Your task to perform on an android device: View the shopping cart on newegg. Search for bose soundlink on newegg, select the first entry, and add it to the cart. Image 0: 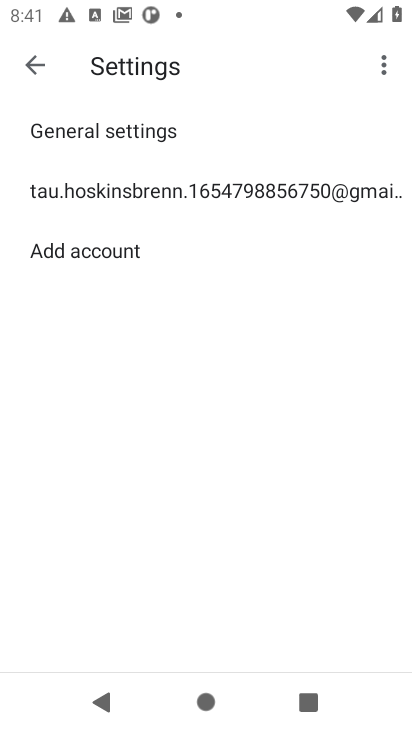
Step 0: press home button
Your task to perform on an android device: View the shopping cart on newegg. Search for bose soundlink on newegg, select the first entry, and add it to the cart. Image 1: 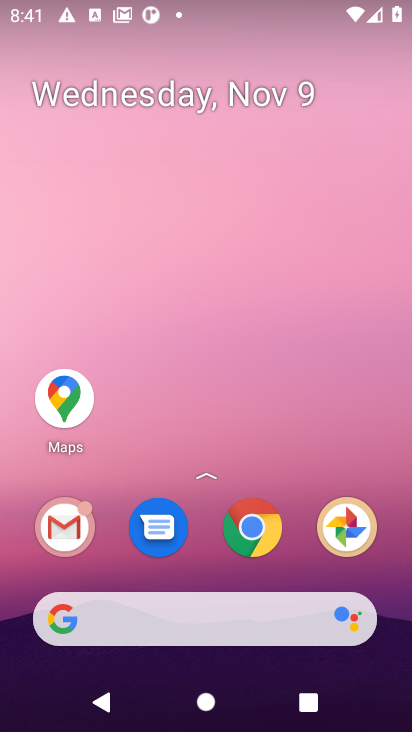
Step 1: click (260, 533)
Your task to perform on an android device: View the shopping cart on newegg. Search for bose soundlink on newegg, select the first entry, and add it to the cart. Image 2: 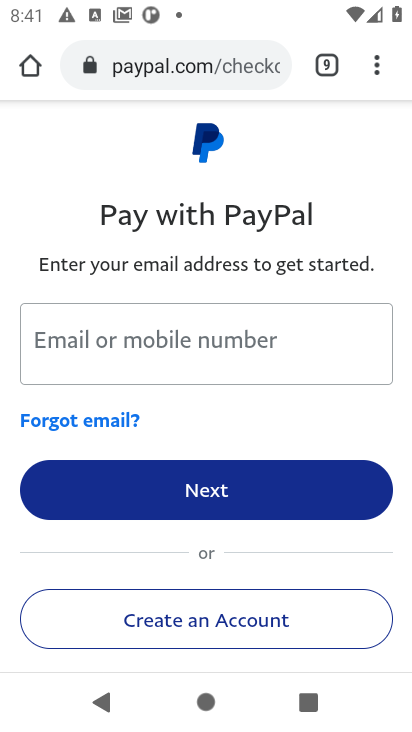
Step 2: click (223, 75)
Your task to perform on an android device: View the shopping cart on newegg. Search for bose soundlink on newegg, select the first entry, and add it to the cart. Image 3: 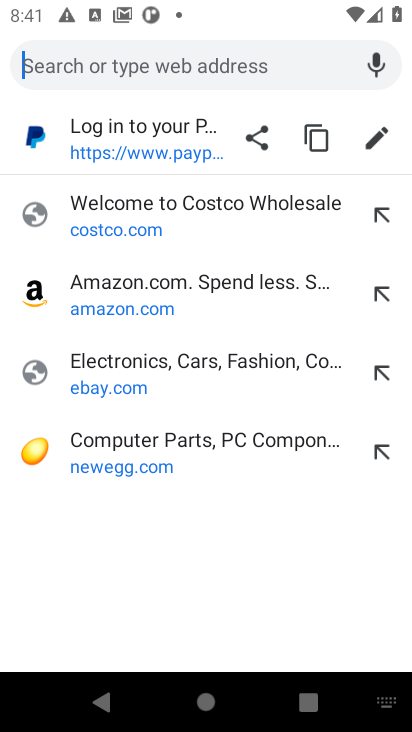
Step 3: click (118, 447)
Your task to perform on an android device: View the shopping cart on newegg. Search for bose soundlink on newegg, select the first entry, and add it to the cart. Image 4: 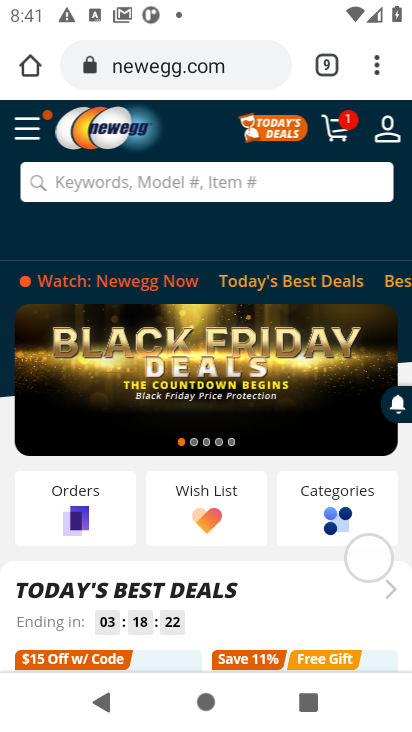
Step 4: click (343, 133)
Your task to perform on an android device: View the shopping cart on newegg. Search for bose soundlink on newegg, select the first entry, and add it to the cart. Image 5: 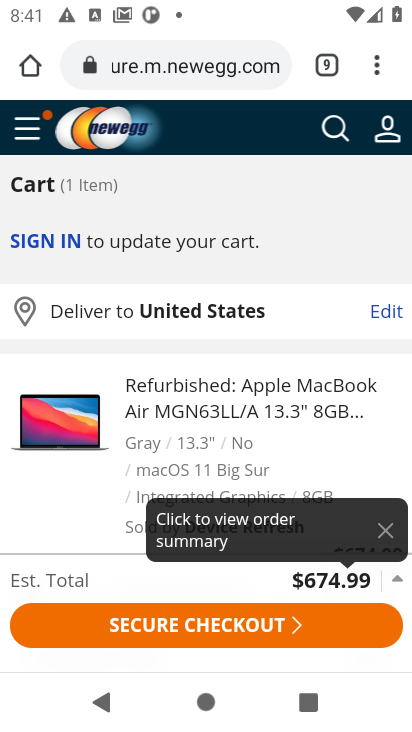
Step 5: drag from (171, 410) to (181, 255)
Your task to perform on an android device: View the shopping cart on newegg. Search for bose soundlink on newegg, select the first entry, and add it to the cart. Image 6: 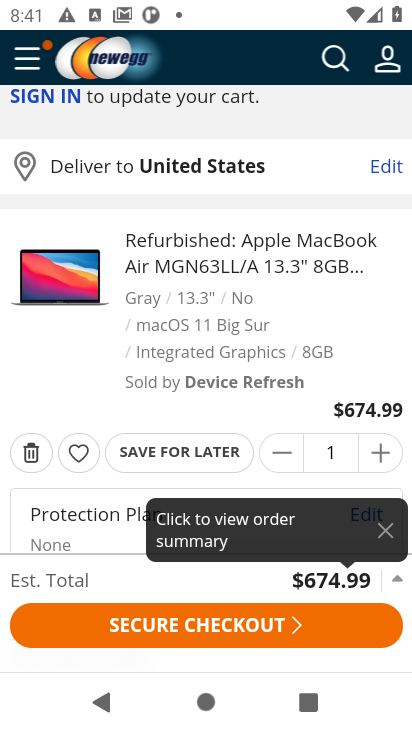
Step 6: click (335, 65)
Your task to perform on an android device: View the shopping cart on newegg. Search for bose soundlink on newegg, select the first entry, and add it to the cart. Image 7: 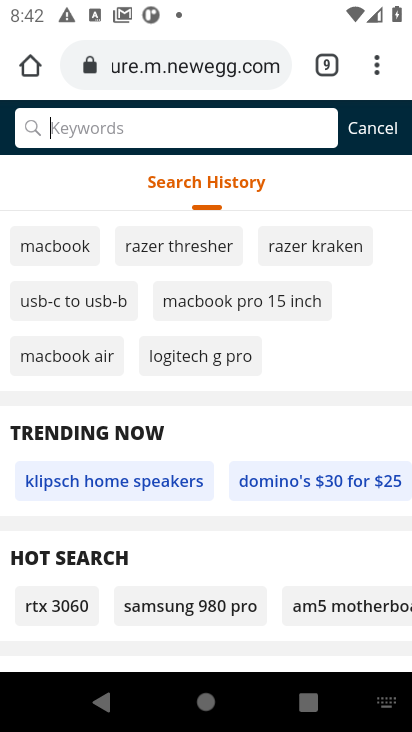
Step 7: type " bose soundlink "
Your task to perform on an android device: View the shopping cart on newegg. Search for bose soundlink on newegg, select the first entry, and add it to the cart. Image 8: 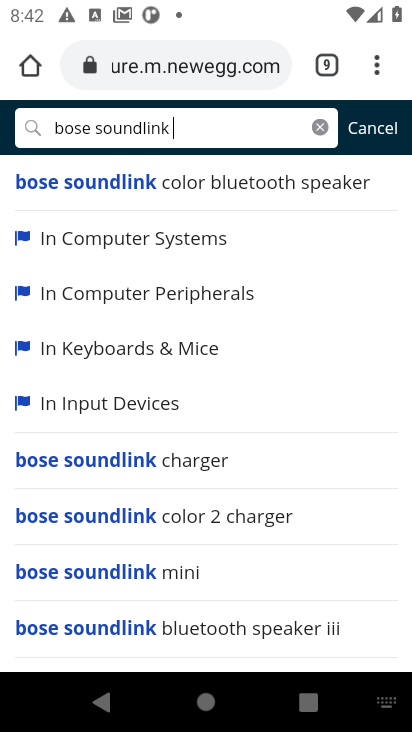
Step 8: drag from (139, 454) to (155, 308)
Your task to perform on an android device: View the shopping cart on newegg. Search for bose soundlink on newegg, select the first entry, and add it to the cart. Image 9: 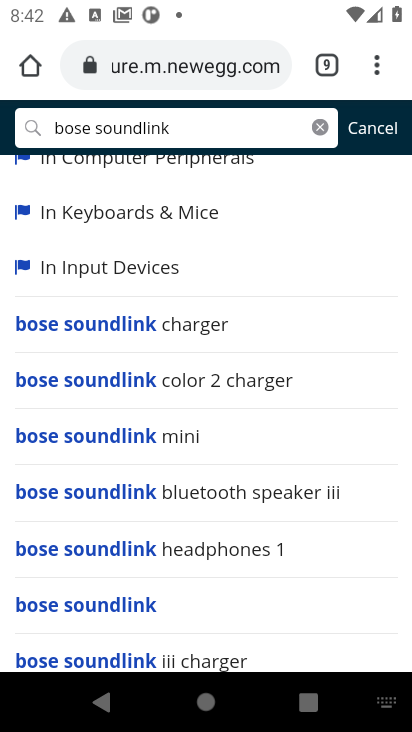
Step 9: click (108, 600)
Your task to perform on an android device: View the shopping cart on newegg. Search for bose soundlink on newegg, select the first entry, and add it to the cart. Image 10: 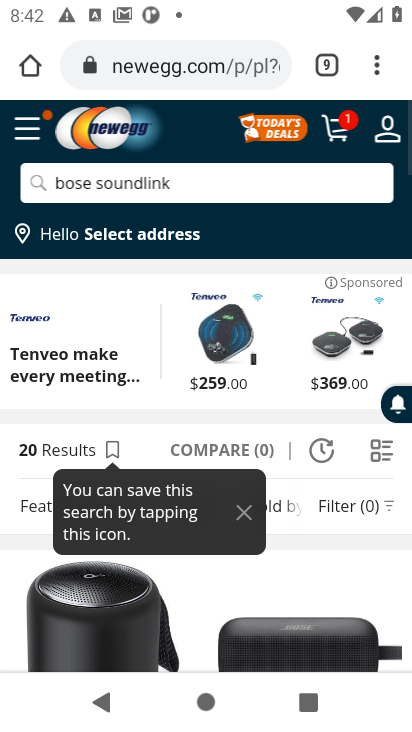
Step 10: task complete